Your task to perform on an android device: When is my next appointment? Image 0: 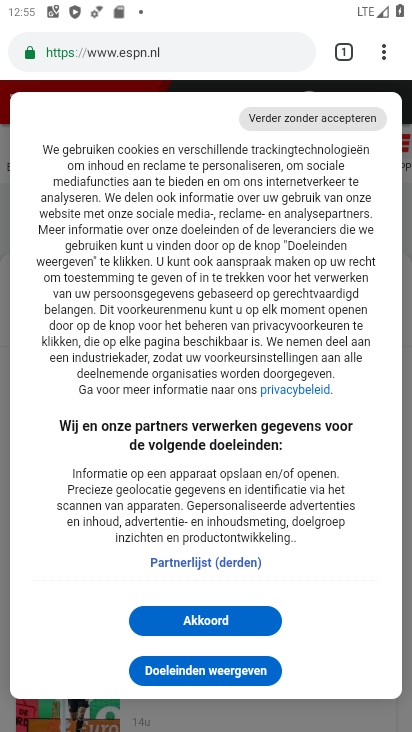
Step 0: press home button
Your task to perform on an android device: When is my next appointment? Image 1: 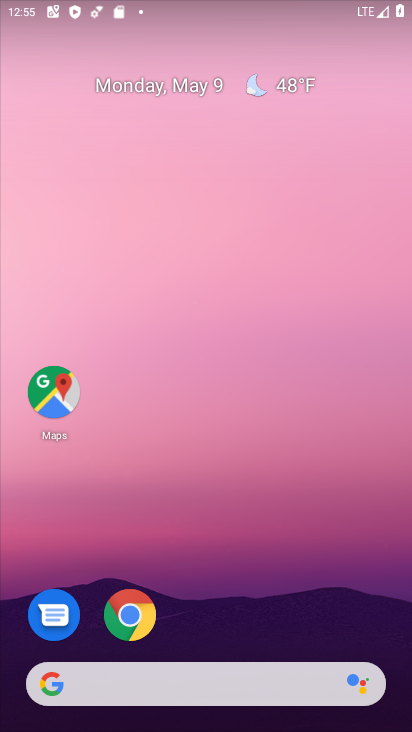
Step 1: drag from (334, 610) to (308, 87)
Your task to perform on an android device: When is my next appointment? Image 2: 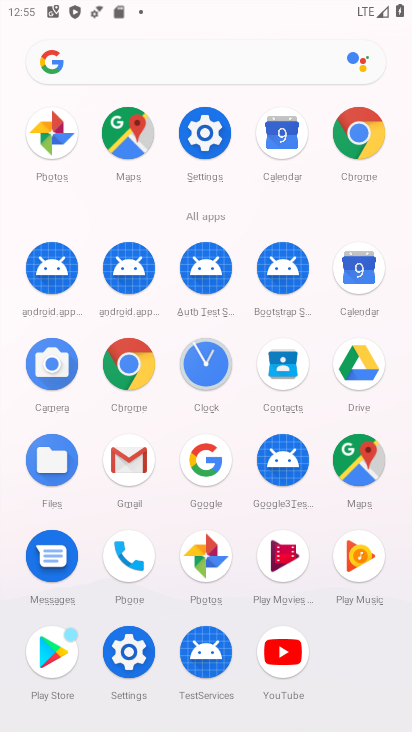
Step 2: click (358, 266)
Your task to perform on an android device: When is my next appointment? Image 3: 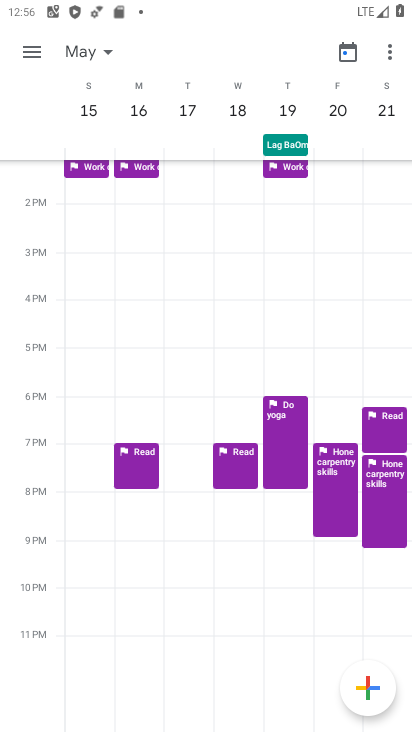
Step 3: click (27, 46)
Your task to perform on an android device: When is my next appointment? Image 4: 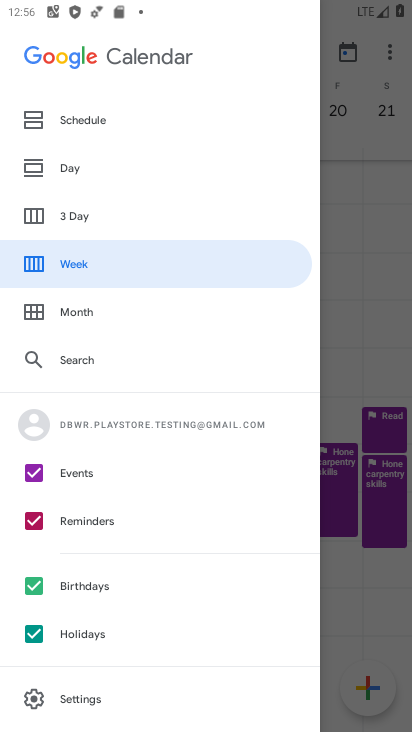
Step 4: click (79, 115)
Your task to perform on an android device: When is my next appointment? Image 5: 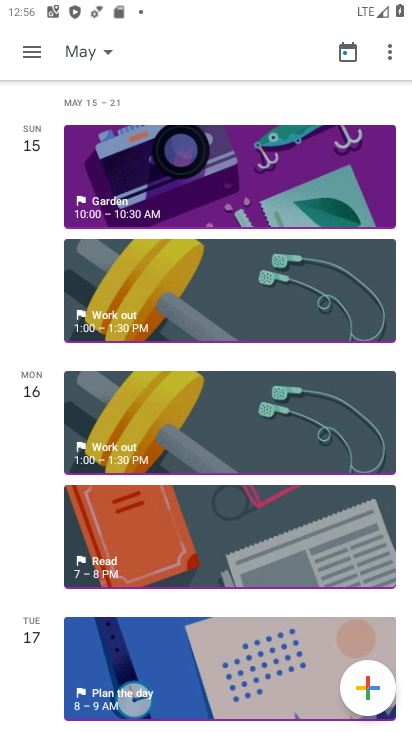
Step 5: task complete